Your task to perform on an android device: star an email in the gmail app Image 0: 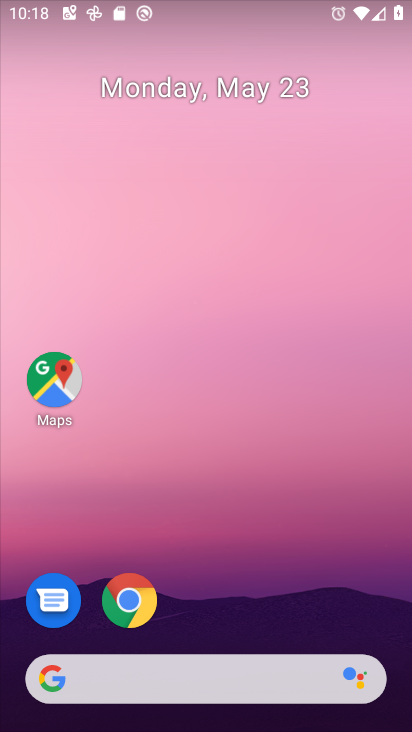
Step 0: drag from (235, 712) to (213, 78)
Your task to perform on an android device: star an email in the gmail app Image 1: 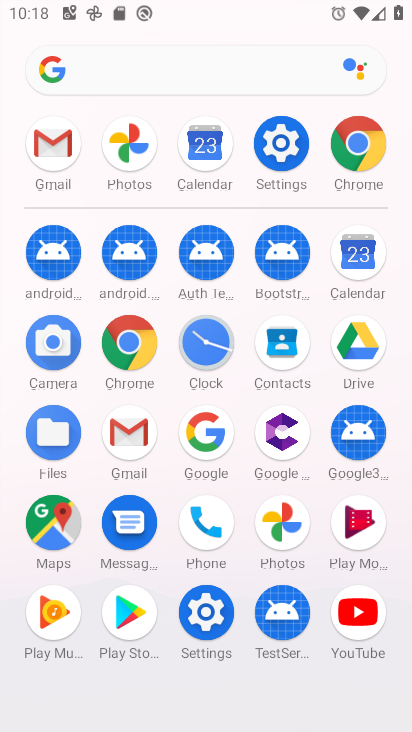
Step 1: click (122, 427)
Your task to perform on an android device: star an email in the gmail app Image 2: 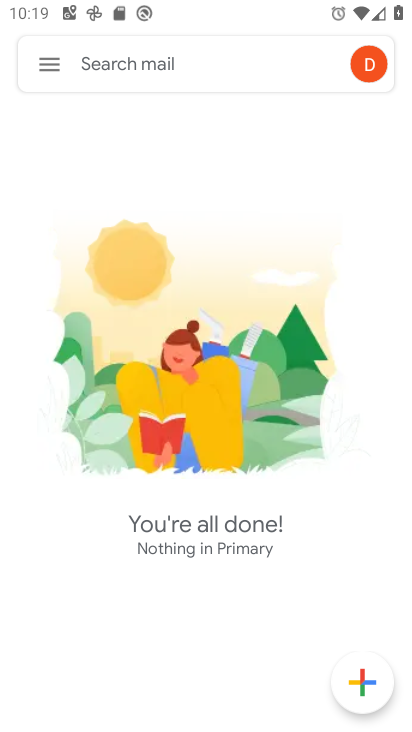
Step 2: task complete